Your task to perform on an android device: Go to Yahoo.com Image 0: 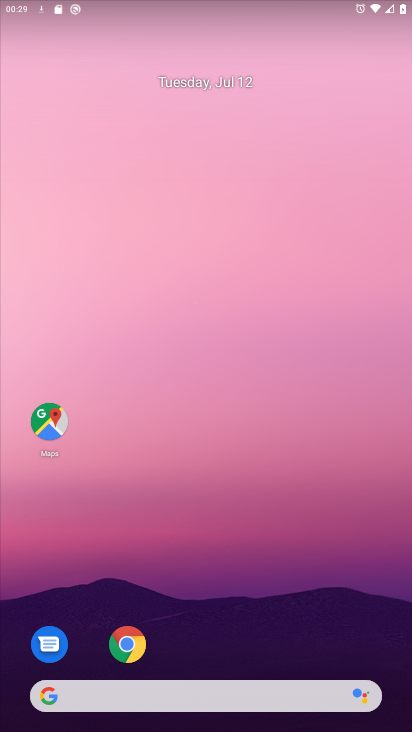
Step 0: click (113, 627)
Your task to perform on an android device: Go to Yahoo.com Image 1: 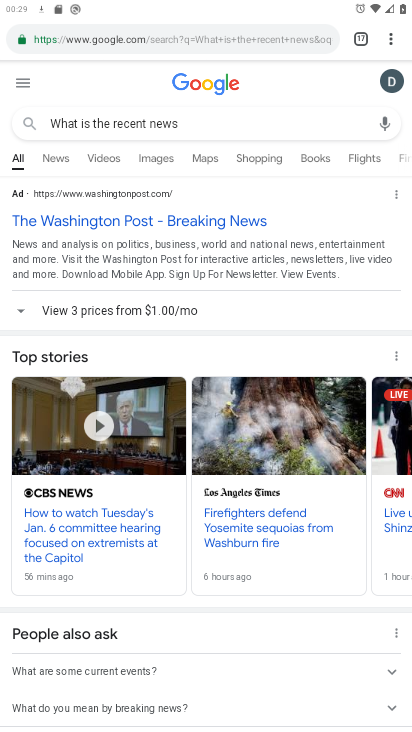
Step 1: click (380, 32)
Your task to perform on an android device: Go to Yahoo.com Image 2: 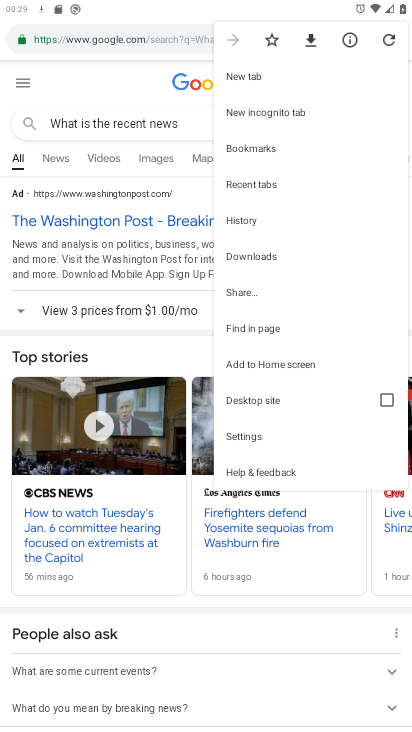
Step 2: click (264, 81)
Your task to perform on an android device: Go to Yahoo.com Image 3: 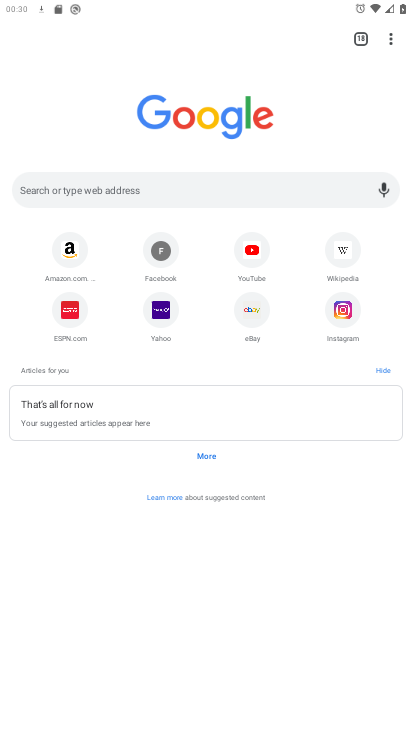
Step 3: click (164, 300)
Your task to perform on an android device: Go to Yahoo.com Image 4: 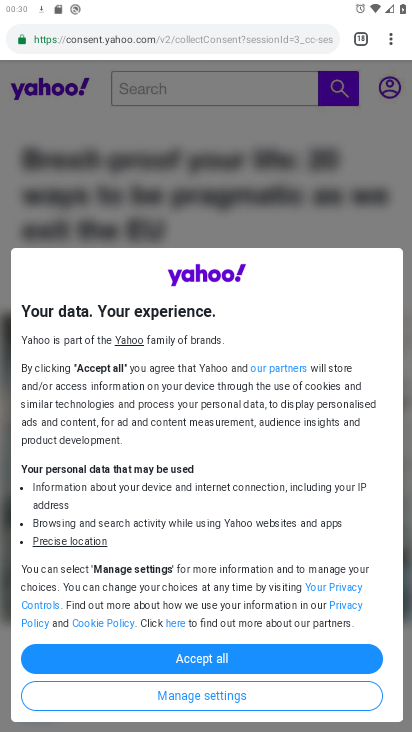
Step 4: task complete